Your task to perform on an android device: change notification settings in the gmail app Image 0: 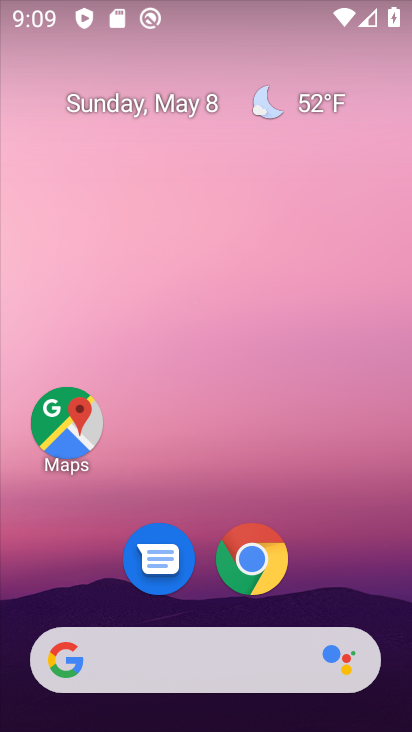
Step 0: drag from (296, 604) to (270, 25)
Your task to perform on an android device: change notification settings in the gmail app Image 1: 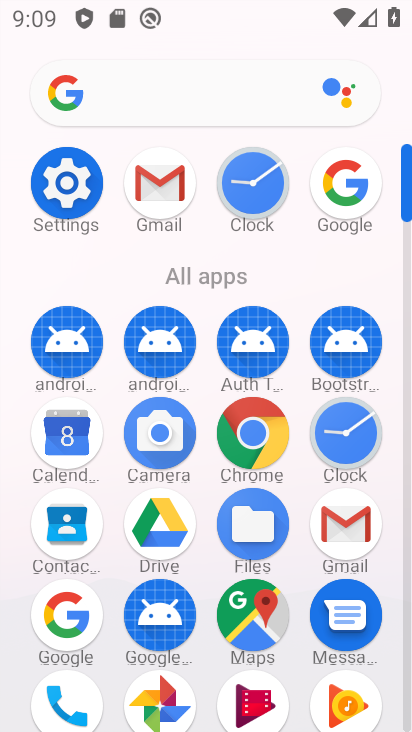
Step 1: click (154, 166)
Your task to perform on an android device: change notification settings in the gmail app Image 2: 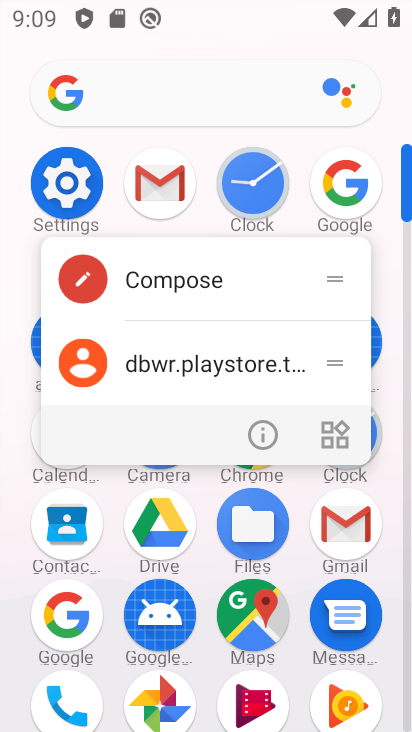
Step 2: click (258, 439)
Your task to perform on an android device: change notification settings in the gmail app Image 3: 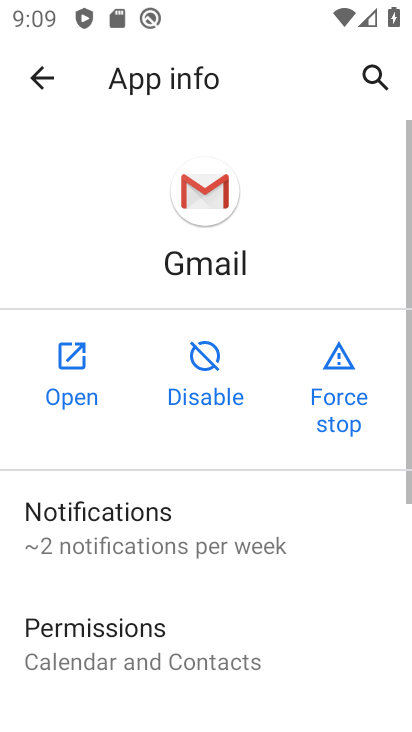
Step 3: click (161, 540)
Your task to perform on an android device: change notification settings in the gmail app Image 4: 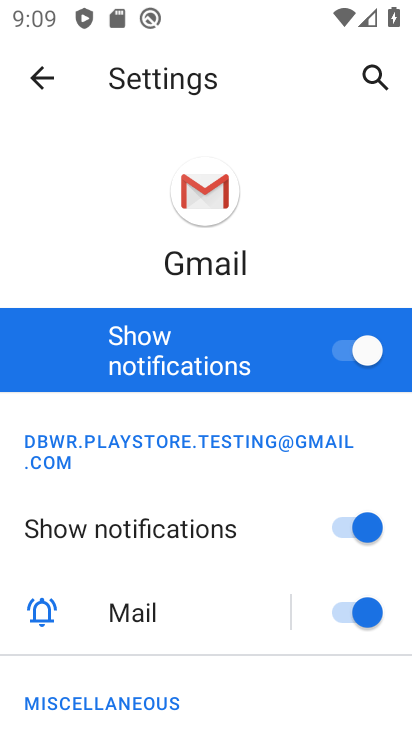
Step 4: click (356, 363)
Your task to perform on an android device: change notification settings in the gmail app Image 5: 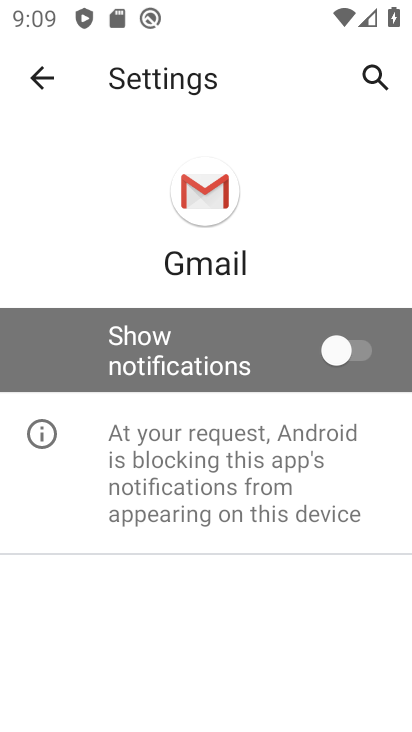
Step 5: task complete